Your task to perform on an android device: turn smart compose on in the gmail app Image 0: 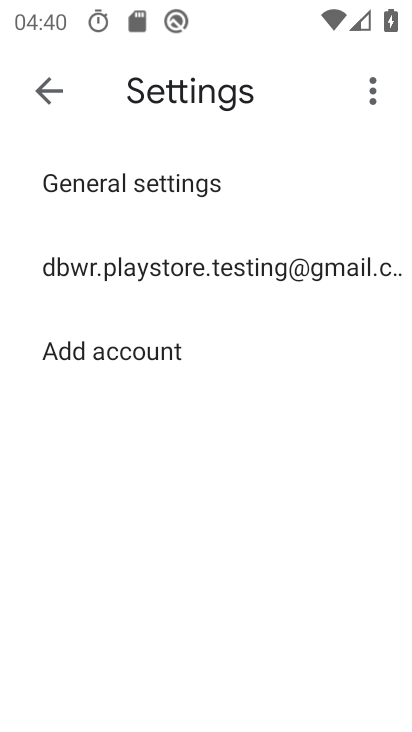
Step 0: press back button
Your task to perform on an android device: turn smart compose on in the gmail app Image 1: 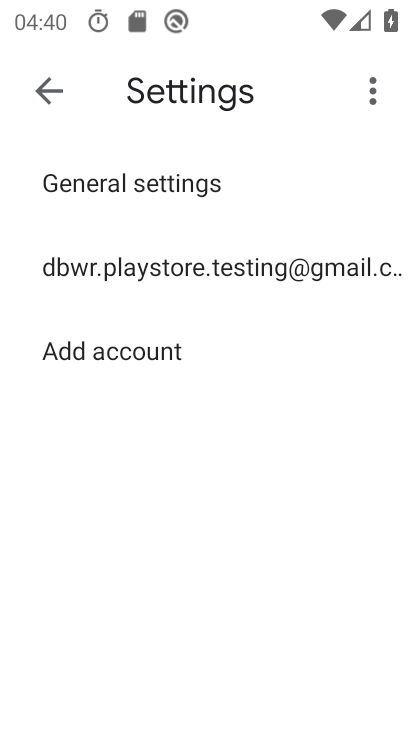
Step 1: press back button
Your task to perform on an android device: turn smart compose on in the gmail app Image 2: 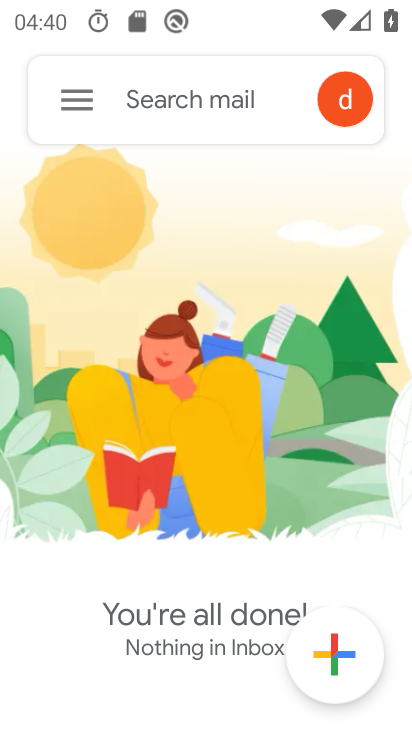
Step 2: click (71, 100)
Your task to perform on an android device: turn smart compose on in the gmail app Image 3: 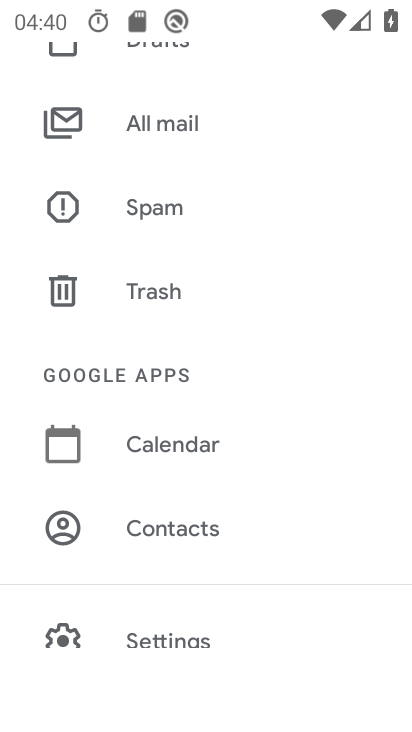
Step 3: drag from (145, 604) to (259, 95)
Your task to perform on an android device: turn smart compose on in the gmail app Image 4: 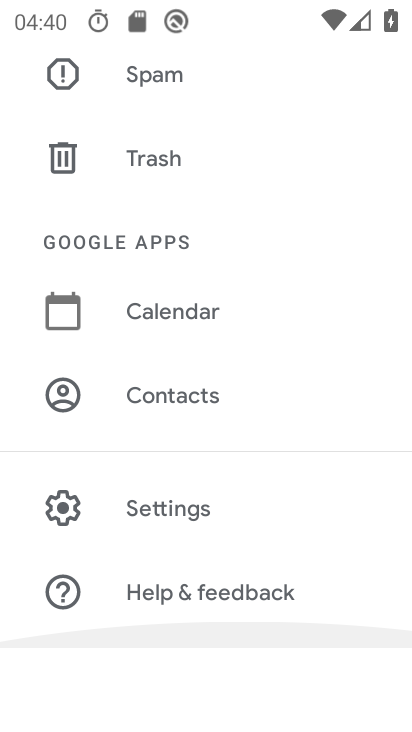
Step 4: click (143, 517)
Your task to perform on an android device: turn smart compose on in the gmail app Image 5: 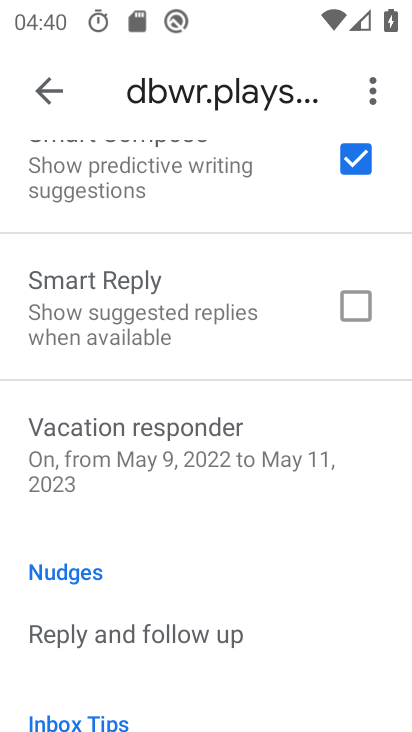
Step 5: task complete